Your task to perform on an android device: Open Chrome and go to settings Image 0: 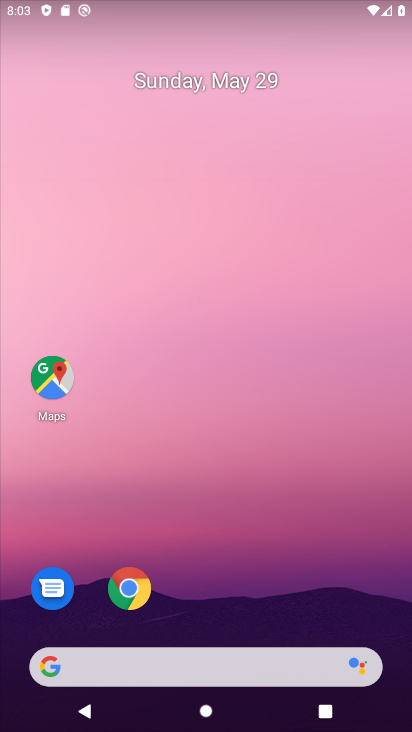
Step 0: drag from (229, 593) to (249, 299)
Your task to perform on an android device: Open Chrome and go to settings Image 1: 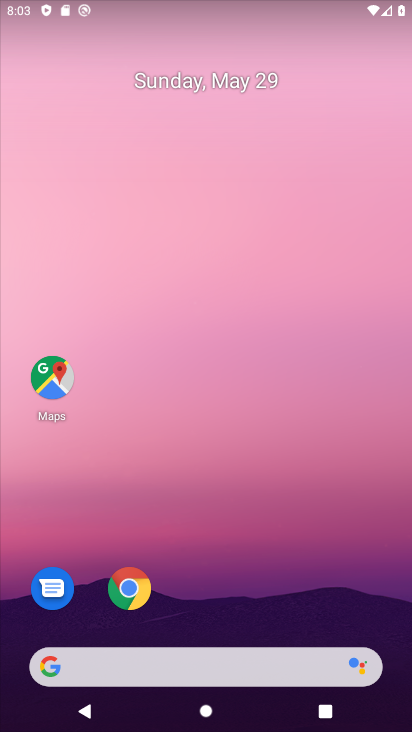
Step 1: click (115, 585)
Your task to perform on an android device: Open Chrome and go to settings Image 2: 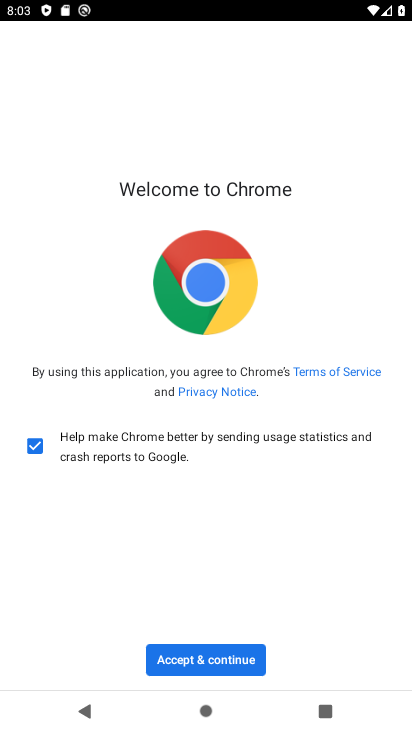
Step 2: click (208, 658)
Your task to perform on an android device: Open Chrome and go to settings Image 3: 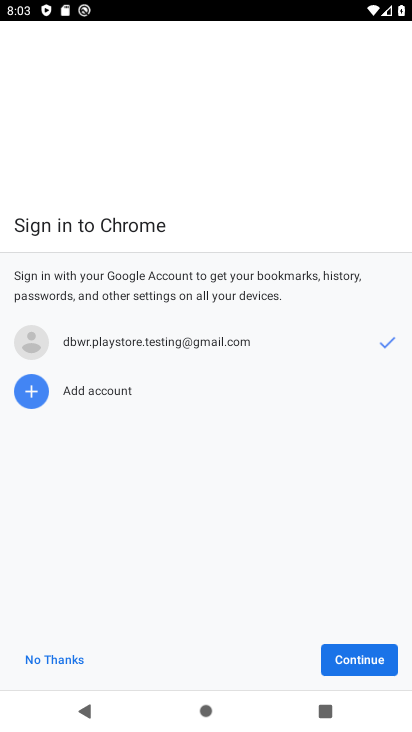
Step 3: click (344, 665)
Your task to perform on an android device: Open Chrome and go to settings Image 4: 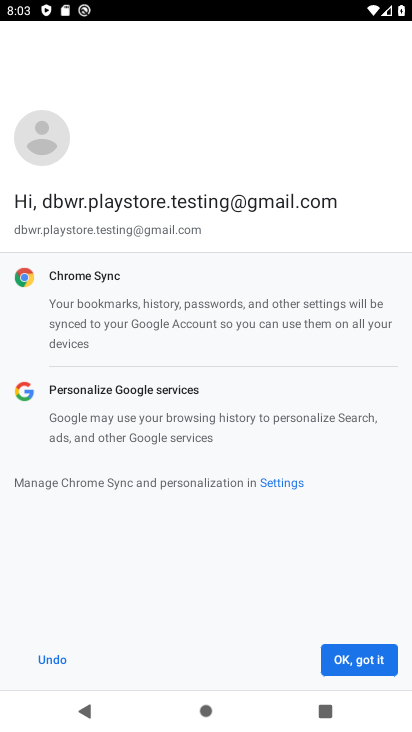
Step 4: click (363, 643)
Your task to perform on an android device: Open Chrome and go to settings Image 5: 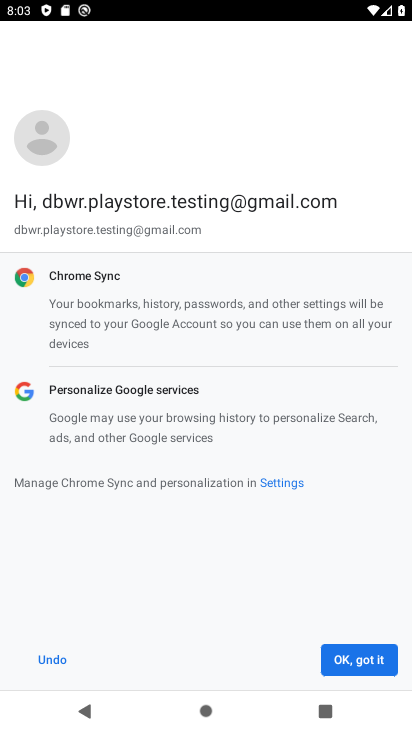
Step 5: click (367, 655)
Your task to perform on an android device: Open Chrome and go to settings Image 6: 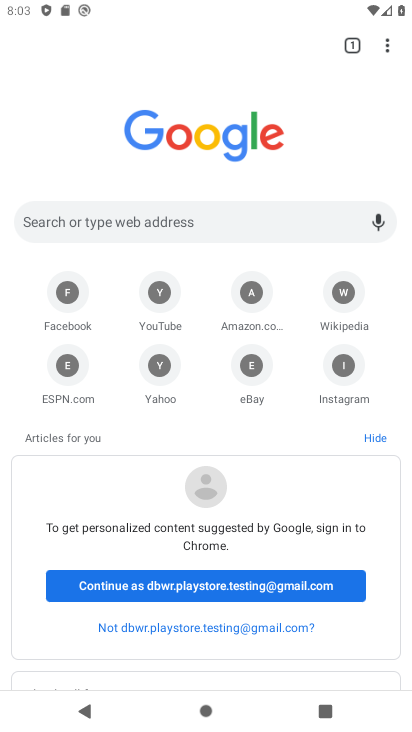
Step 6: click (386, 44)
Your task to perform on an android device: Open Chrome and go to settings Image 7: 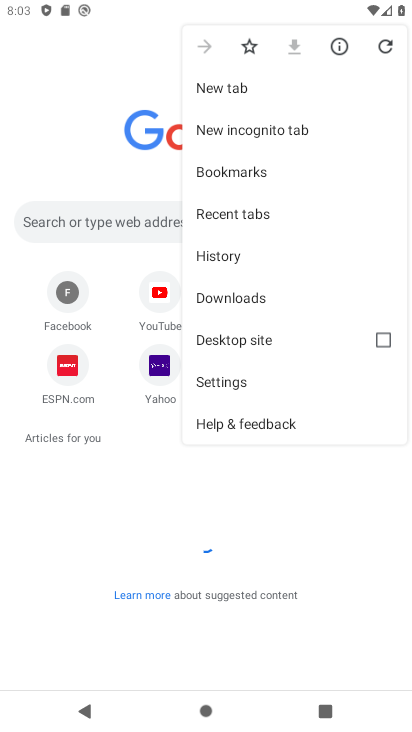
Step 7: click (225, 385)
Your task to perform on an android device: Open Chrome and go to settings Image 8: 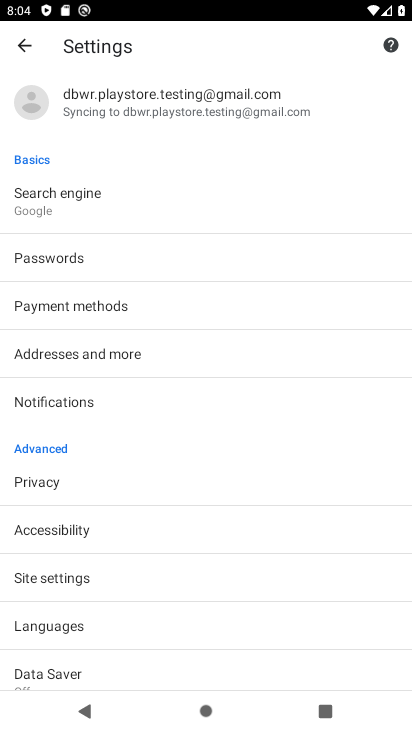
Step 8: task complete